Your task to perform on an android device: turn off priority inbox in the gmail app Image 0: 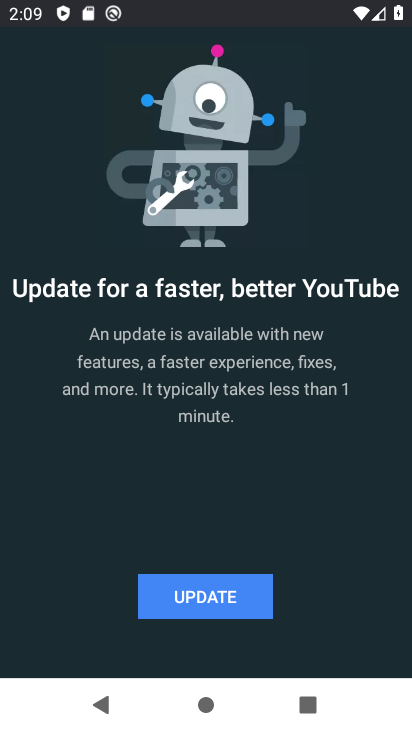
Step 0: press back button
Your task to perform on an android device: turn off priority inbox in the gmail app Image 1: 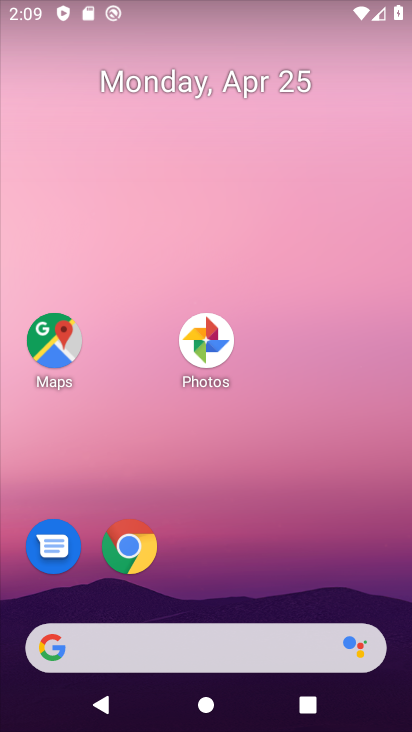
Step 1: drag from (332, 491) to (344, 177)
Your task to perform on an android device: turn off priority inbox in the gmail app Image 2: 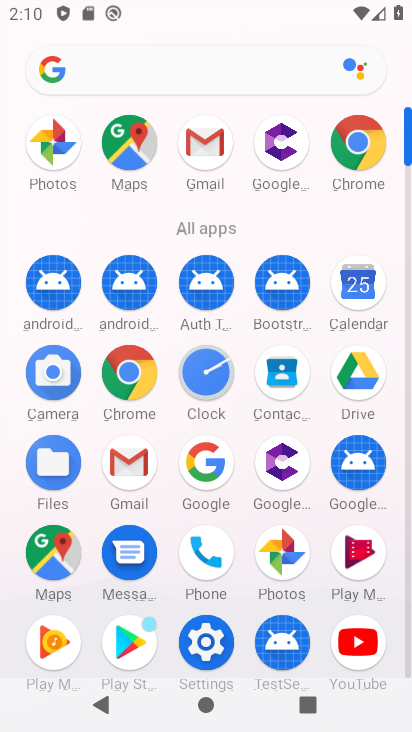
Step 2: click (117, 453)
Your task to perform on an android device: turn off priority inbox in the gmail app Image 3: 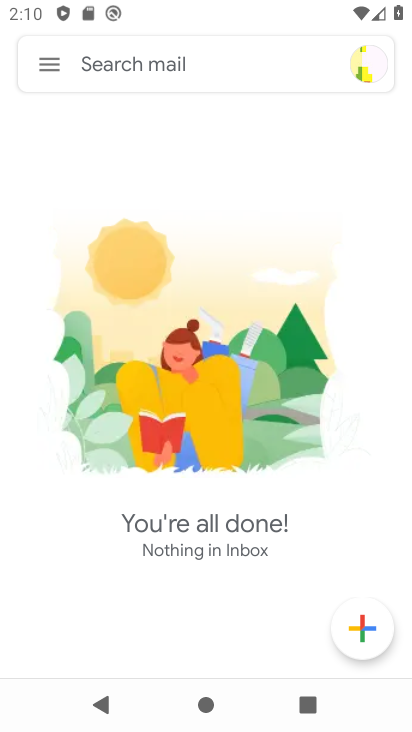
Step 3: click (48, 64)
Your task to perform on an android device: turn off priority inbox in the gmail app Image 4: 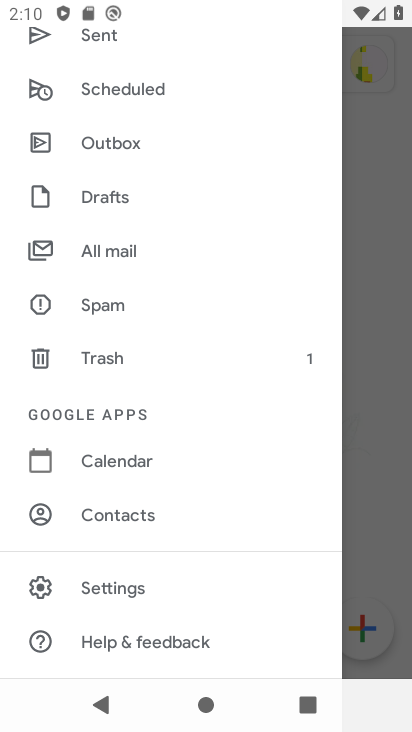
Step 4: click (131, 591)
Your task to perform on an android device: turn off priority inbox in the gmail app Image 5: 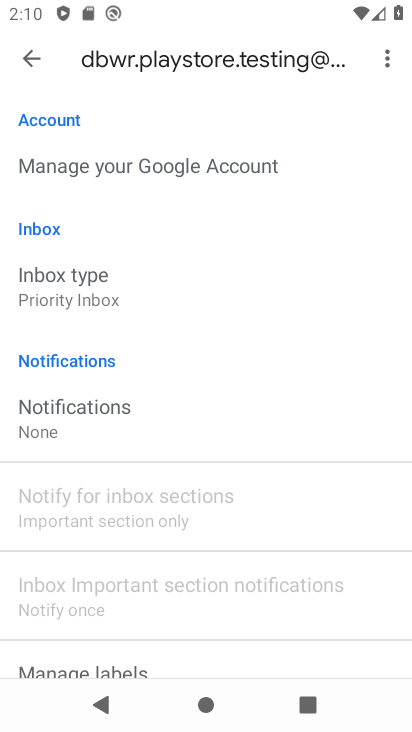
Step 5: click (141, 292)
Your task to perform on an android device: turn off priority inbox in the gmail app Image 6: 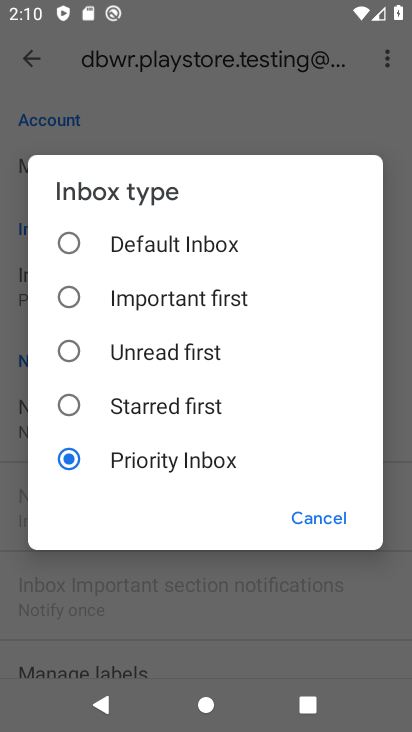
Step 6: click (165, 254)
Your task to perform on an android device: turn off priority inbox in the gmail app Image 7: 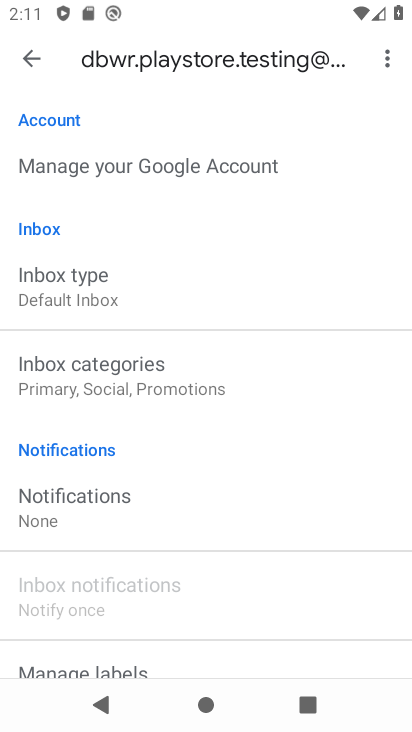
Step 7: task complete